Your task to perform on an android device: toggle pop-ups in chrome Image 0: 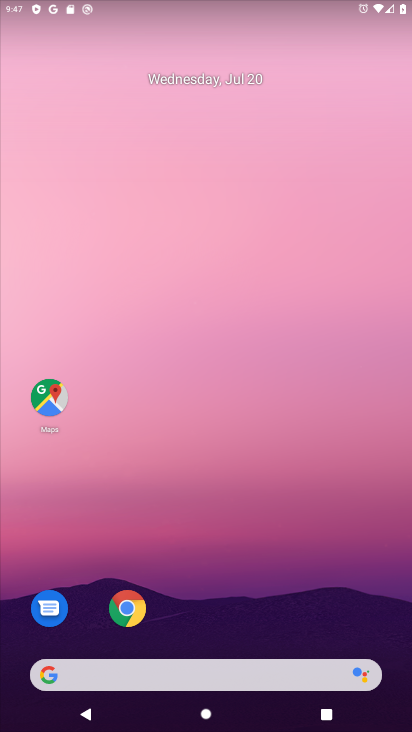
Step 0: click (125, 607)
Your task to perform on an android device: toggle pop-ups in chrome Image 1: 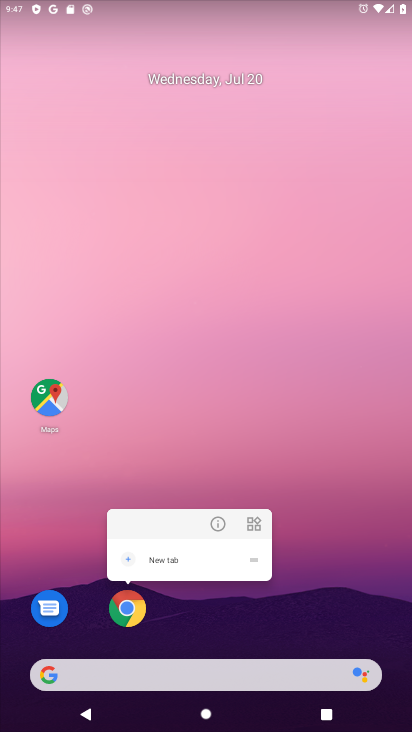
Step 1: click (125, 607)
Your task to perform on an android device: toggle pop-ups in chrome Image 2: 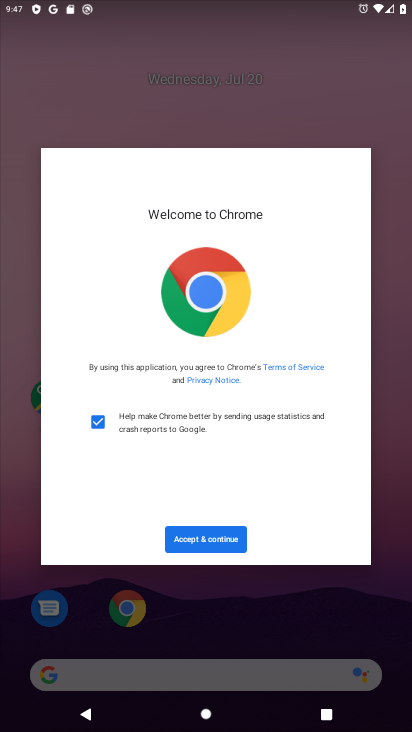
Step 2: click (202, 534)
Your task to perform on an android device: toggle pop-ups in chrome Image 3: 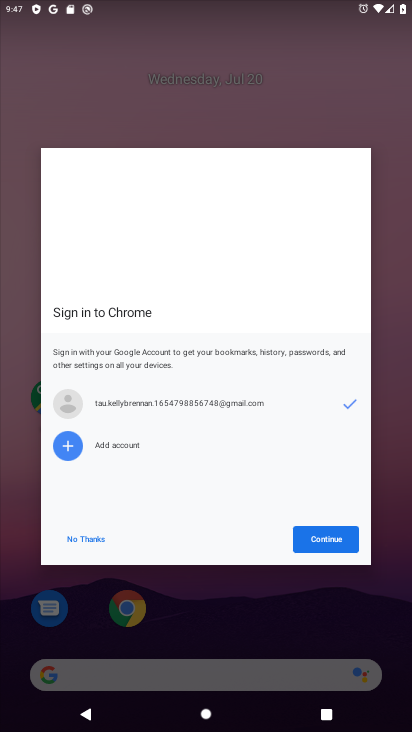
Step 3: click (327, 531)
Your task to perform on an android device: toggle pop-ups in chrome Image 4: 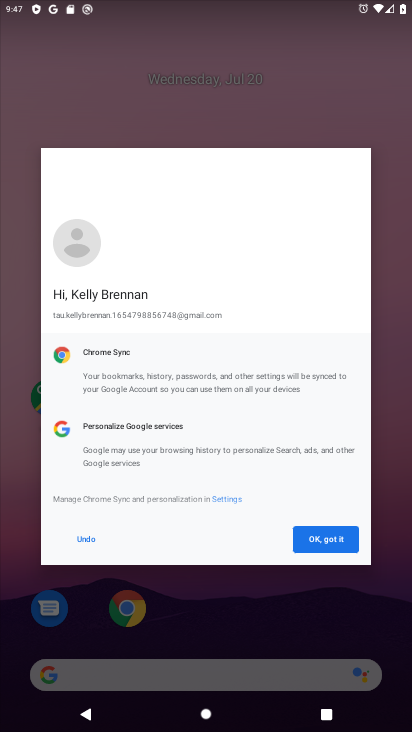
Step 4: click (324, 535)
Your task to perform on an android device: toggle pop-ups in chrome Image 5: 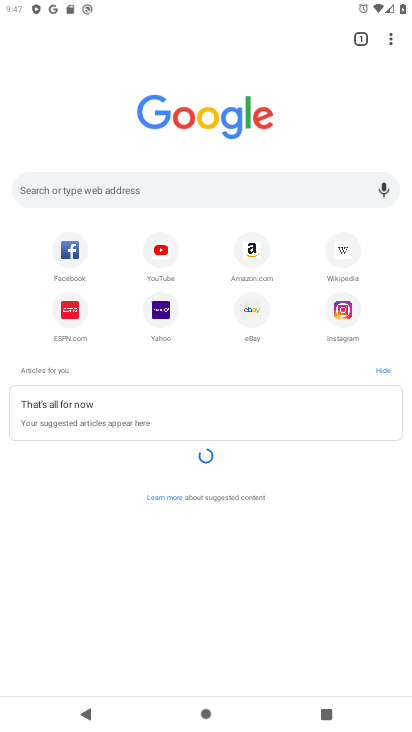
Step 5: click (391, 31)
Your task to perform on an android device: toggle pop-ups in chrome Image 6: 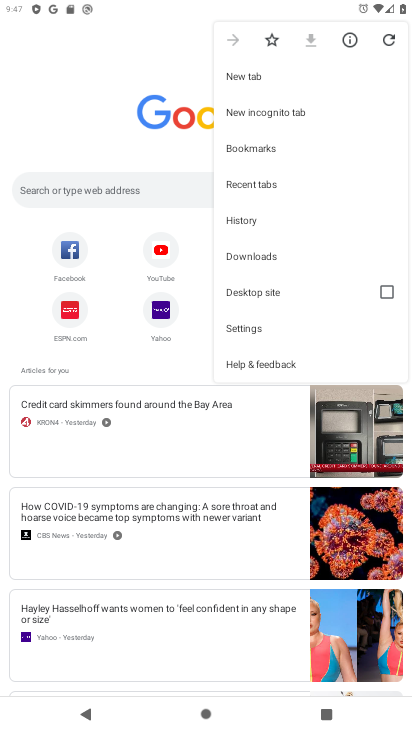
Step 6: click (269, 324)
Your task to perform on an android device: toggle pop-ups in chrome Image 7: 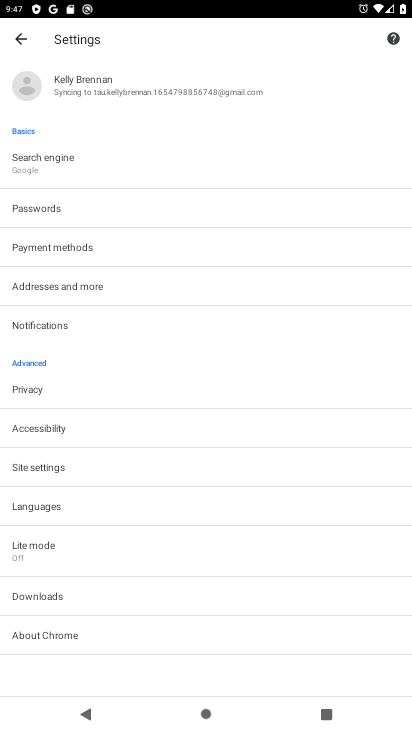
Step 7: click (76, 471)
Your task to perform on an android device: toggle pop-ups in chrome Image 8: 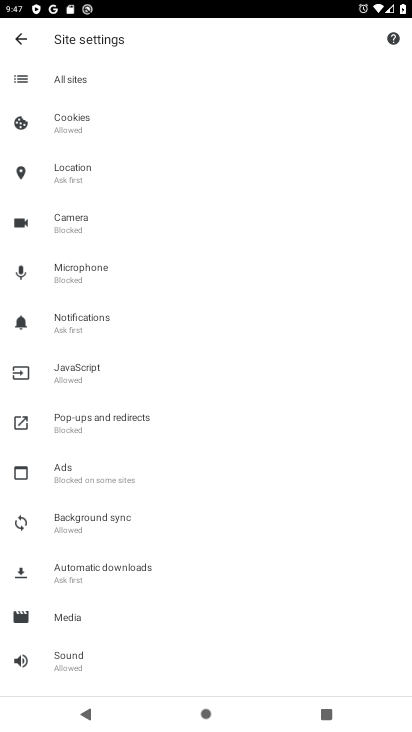
Step 8: click (97, 417)
Your task to perform on an android device: toggle pop-ups in chrome Image 9: 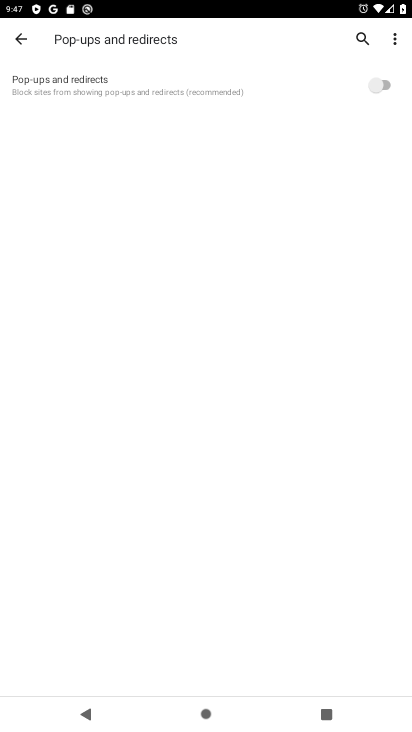
Step 9: click (383, 80)
Your task to perform on an android device: toggle pop-ups in chrome Image 10: 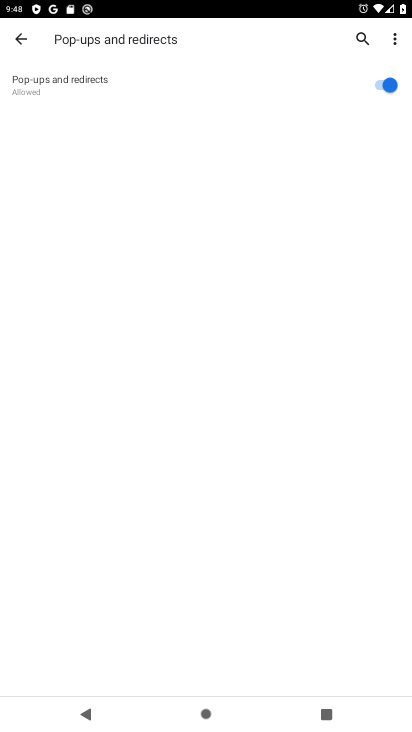
Step 10: task complete